Your task to perform on an android device: delete a single message in the gmail app Image 0: 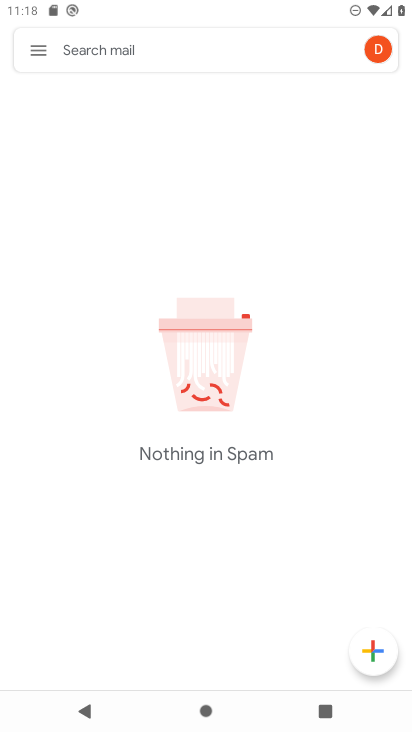
Step 0: press home button
Your task to perform on an android device: delete a single message in the gmail app Image 1: 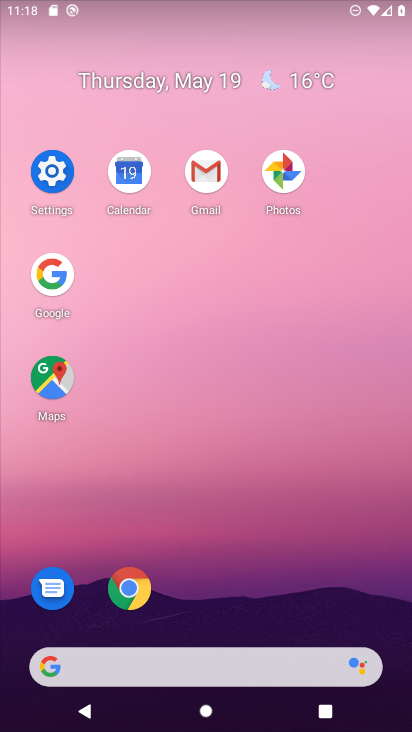
Step 1: click (211, 161)
Your task to perform on an android device: delete a single message in the gmail app Image 2: 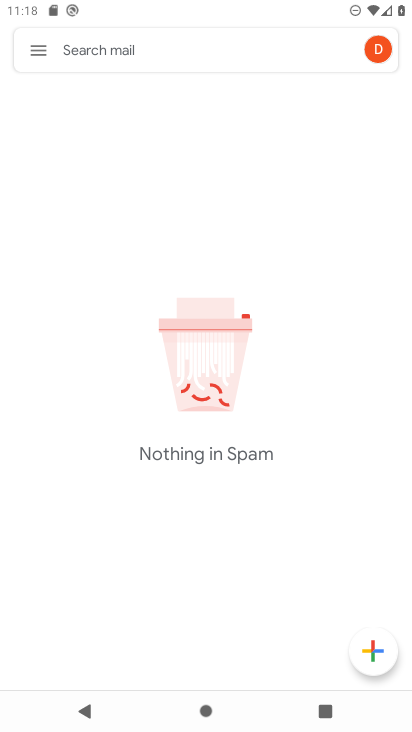
Step 2: click (38, 34)
Your task to perform on an android device: delete a single message in the gmail app Image 3: 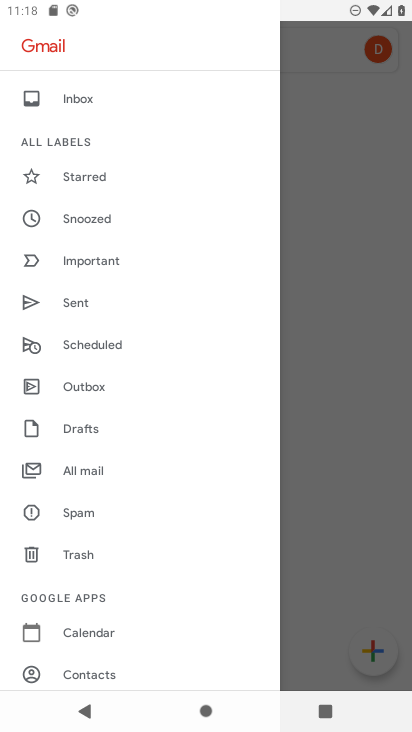
Step 3: click (82, 481)
Your task to perform on an android device: delete a single message in the gmail app Image 4: 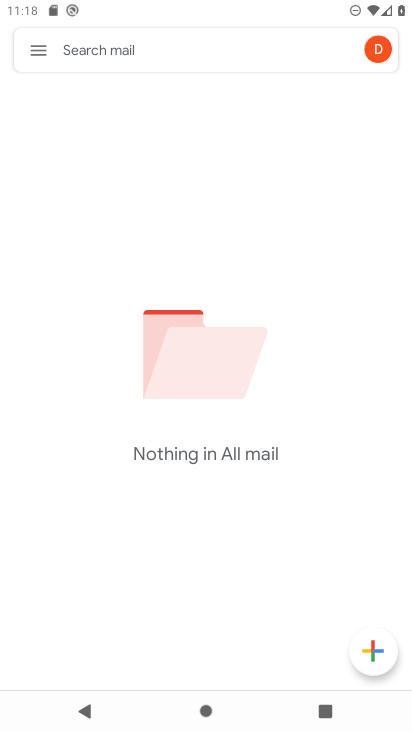
Step 4: task complete